Your task to perform on an android device: Do I have any events today? Image 0: 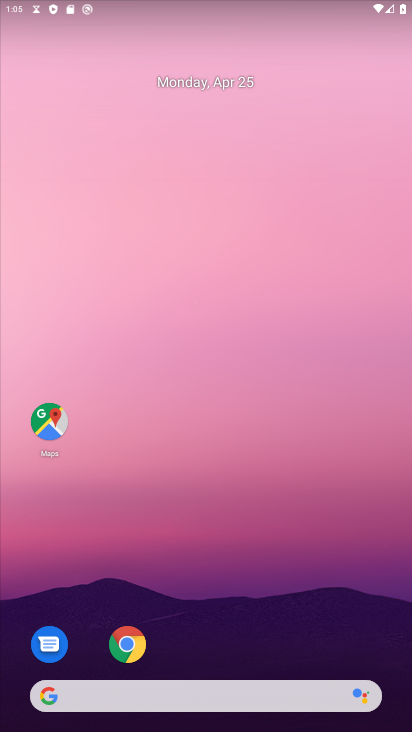
Step 0: drag from (359, 612) to (357, 25)
Your task to perform on an android device: Do I have any events today? Image 1: 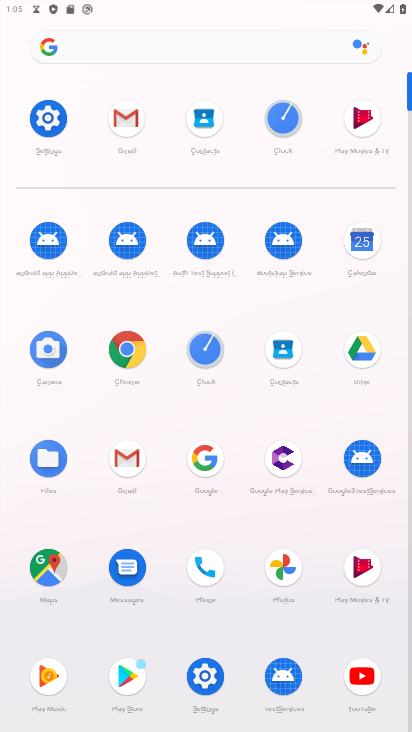
Step 1: click (361, 243)
Your task to perform on an android device: Do I have any events today? Image 2: 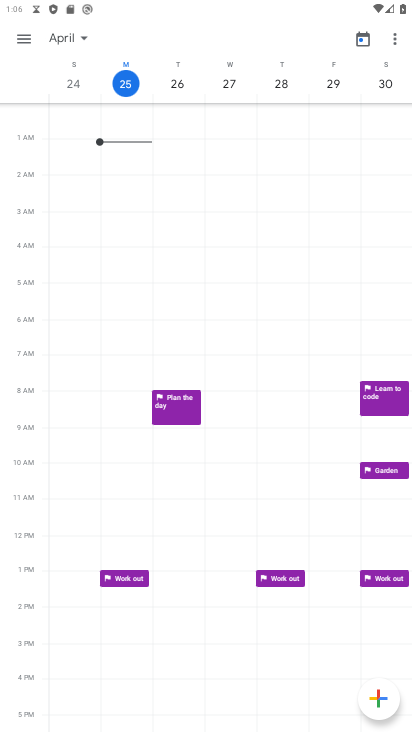
Step 2: click (87, 40)
Your task to perform on an android device: Do I have any events today? Image 3: 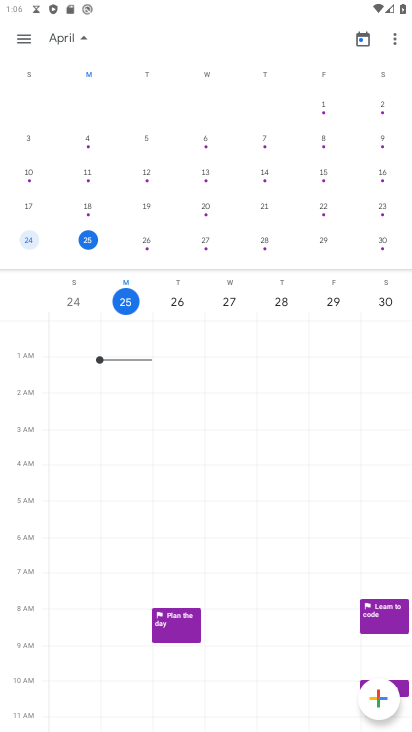
Step 3: click (17, 40)
Your task to perform on an android device: Do I have any events today? Image 4: 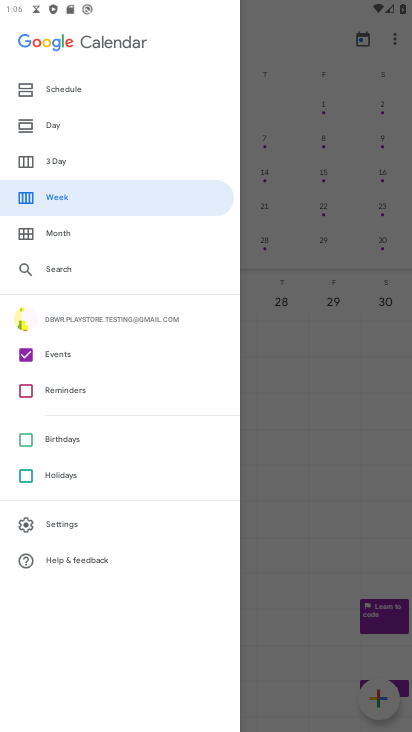
Step 4: click (64, 88)
Your task to perform on an android device: Do I have any events today? Image 5: 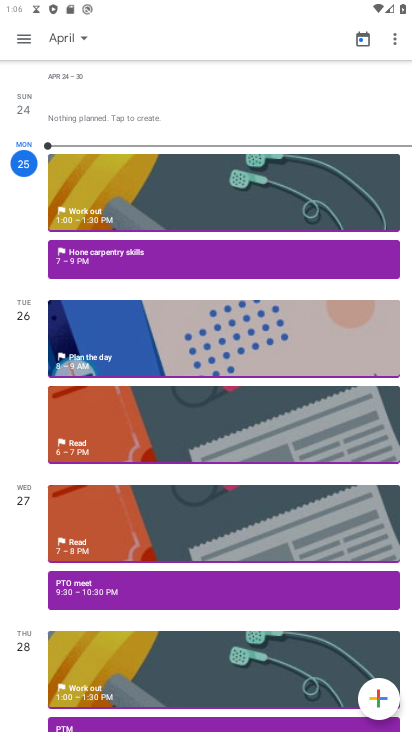
Step 5: click (100, 261)
Your task to perform on an android device: Do I have any events today? Image 6: 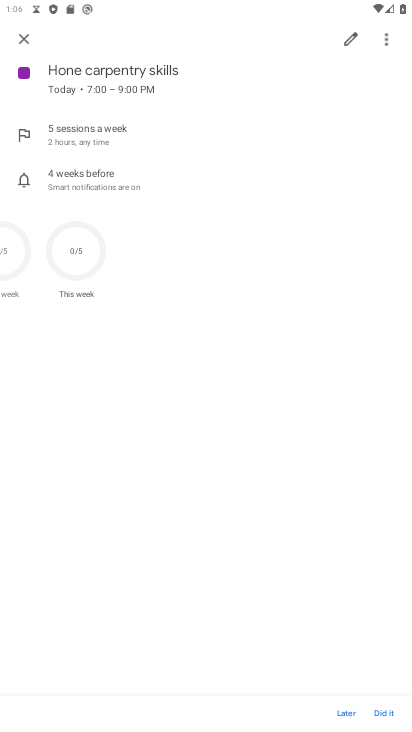
Step 6: task complete